Your task to perform on an android device: turn on notifications settings in the gmail app Image 0: 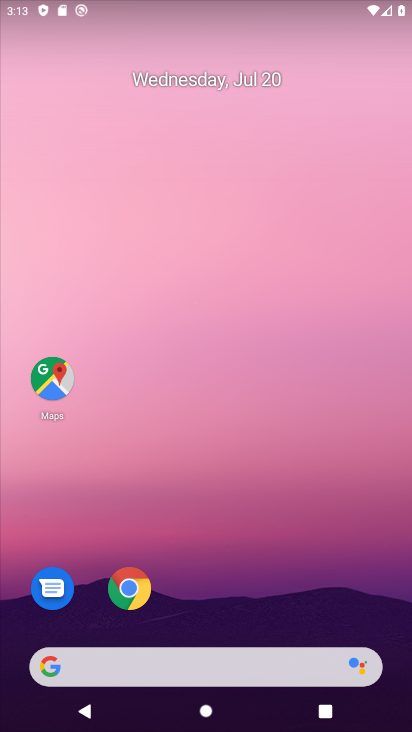
Step 0: drag from (327, 429) to (360, 79)
Your task to perform on an android device: turn on notifications settings in the gmail app Image 1: 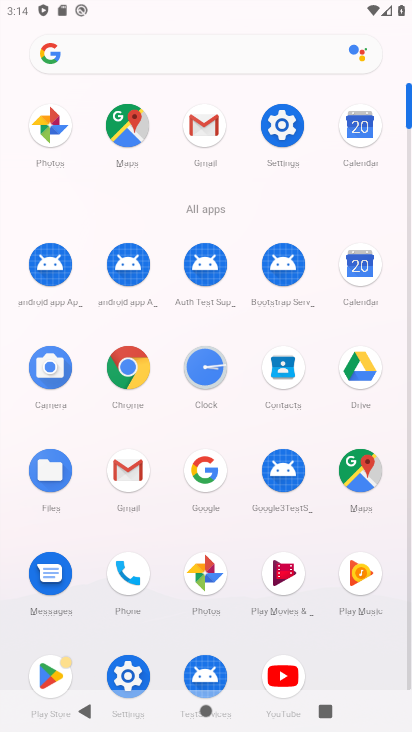
Step 1: click (206, 138)
Your task to perform on an android device: turn on notifications settings in the gmail app Image 2: 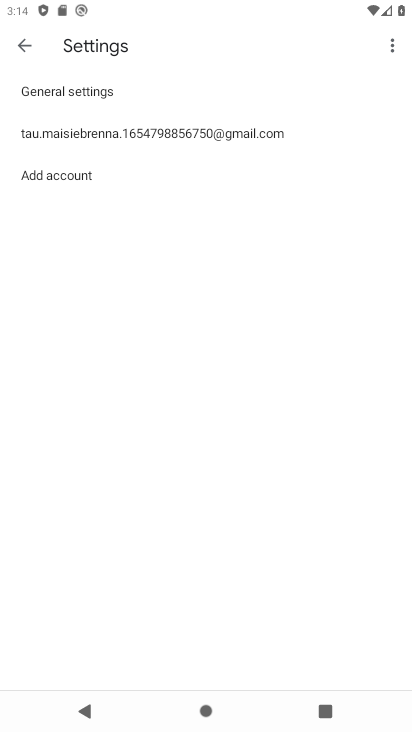
Step 2: click (48, 132)
Your task to perform on an android device: turn on notifications settings in the gmail app Image 3: 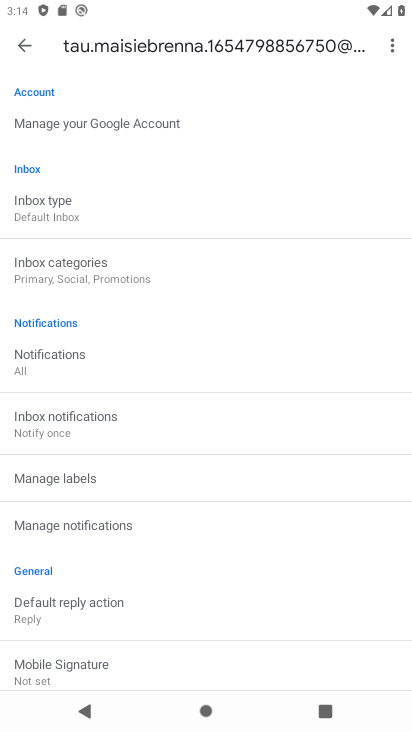
Step 3: click (63, 528)
Your task to perform on an android device: turn on notifications settings in the gmail app Image 4: 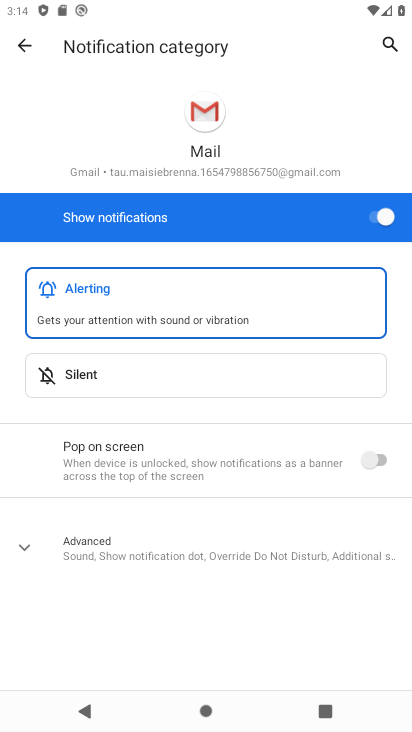
Step 4: task complete